Your task to perform on an android device: change the clock style Image 0: 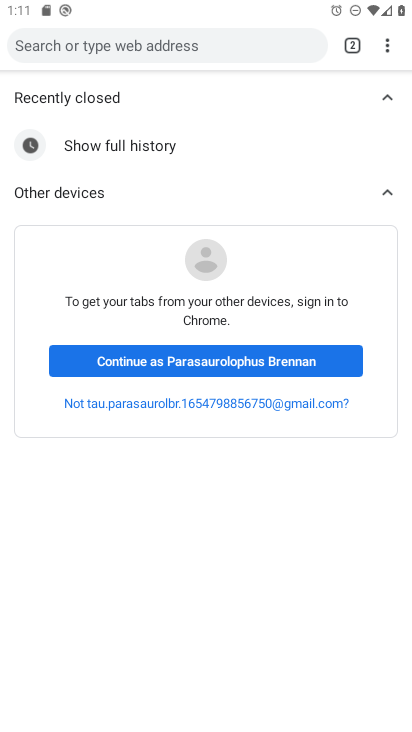
Step 0: press home button
Your task to perform on an android device: change the clock style Image 1: 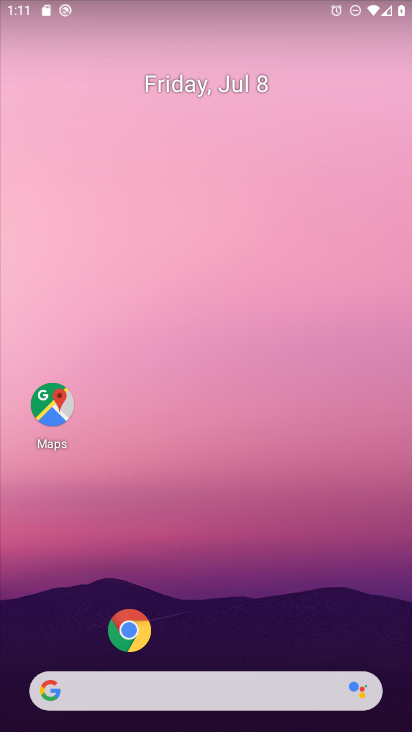
Step 1: drag from (227, 692) to (266, 107)
Your task to perform on an android device: change the clock style Image 2: 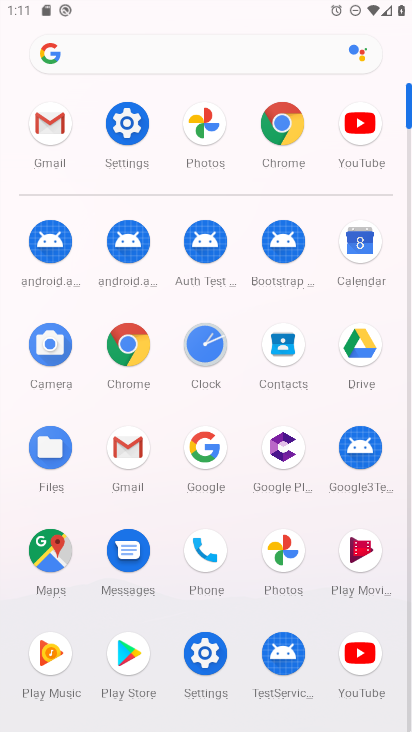
Step 2: click (130, 111)
Your task to perform on an android device: change the clock style Image 3: 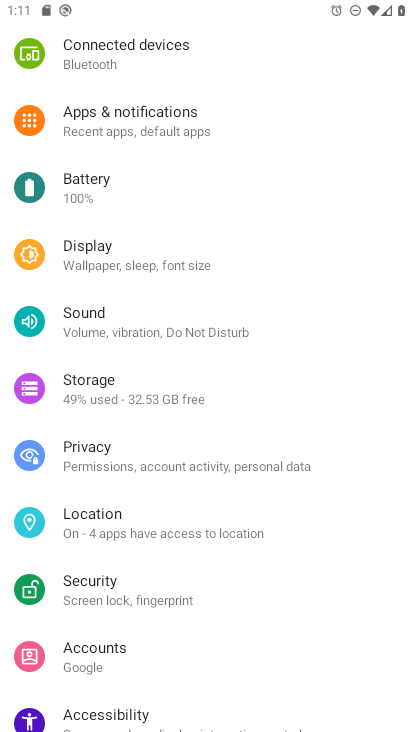
Step 3: press home button
Your task to perform on an android device: change the clock style Image 4: 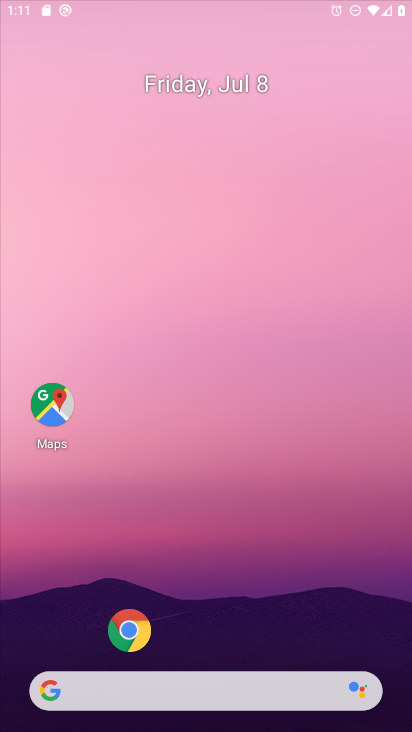
Step 4: drag from (226, 691) to (255, 115)
Your task to perform on an android device: change the clock style Image 5: 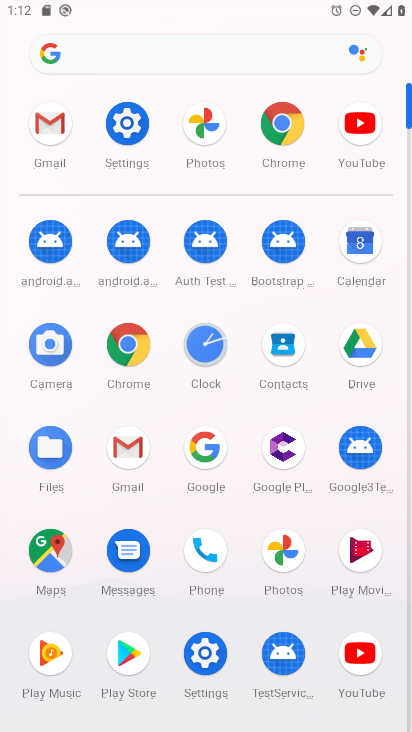
Step 5: click (214, 357)
Your task to perform on an android device: change the clock style Image 6: 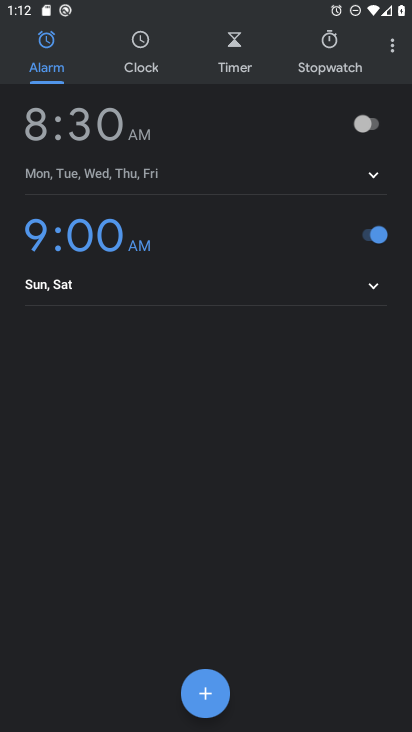
Step 6: click (397, 44)
Your task to perform on an android device: change the clock style Image 7: 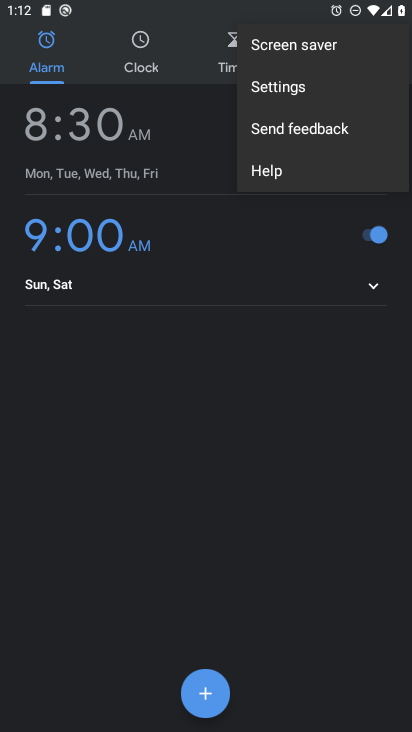
Step 7: click (297, 90)
Your task to perform on an android device: change the clock style Image 8: 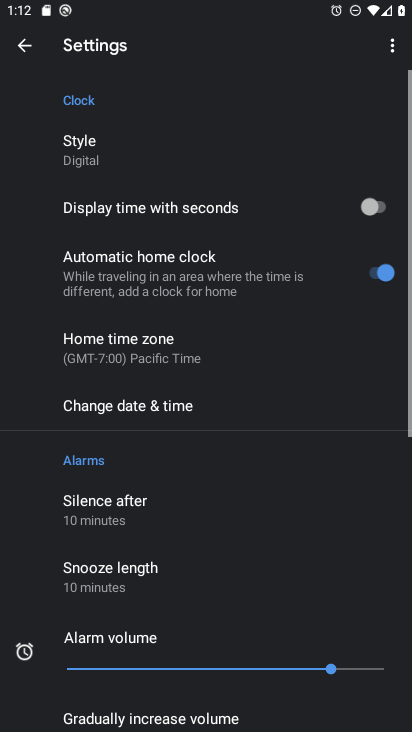
Step 8: drag from (285, 592) to (264, 142)
Your task to perform on an android device: change the clock style Image 9: 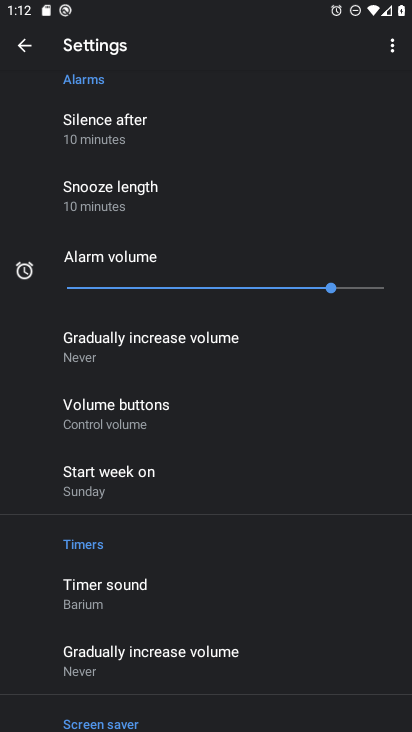
Step 9: drag from (218, 562) to (226, 105)
Your task to perform on an android device: change the clock style Image 10: 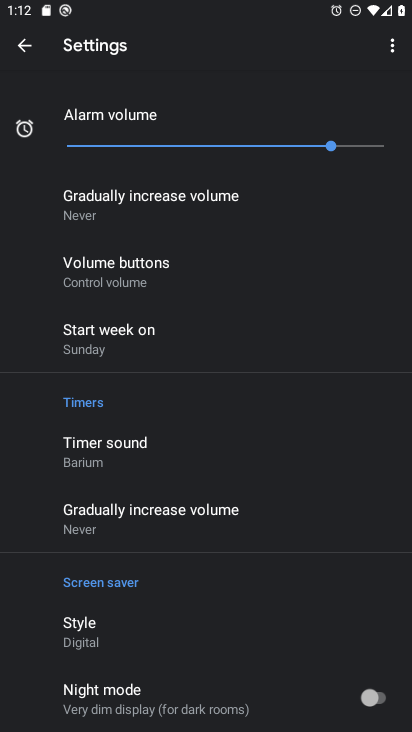
Step 10: click (120, 628)
Your task to perform on an android device: change the clock style Image 11: 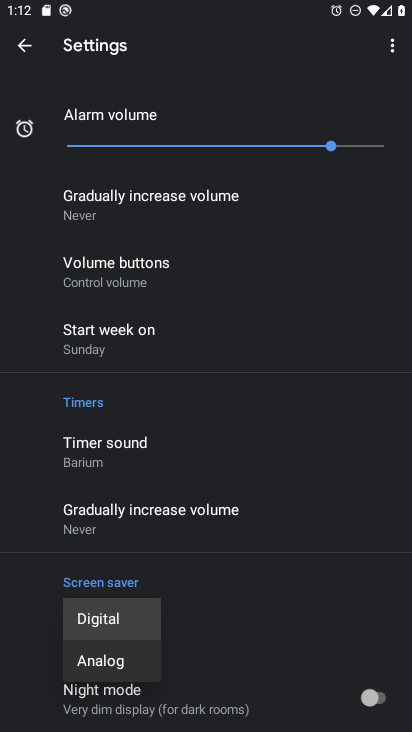
Step 11: click (127, 668)
Your task to perform on an android device: change the clock style Image 12: 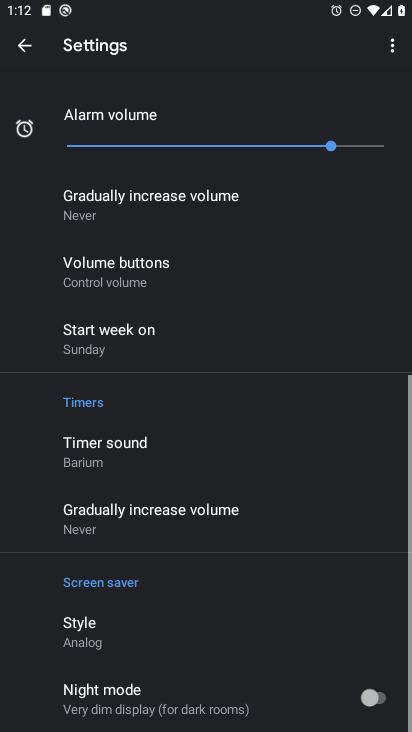
Step 12: task complete